Your task to perform on an android device: Empty the shopping cart on amazon.com. Add "razer nari" to the cart on amazon.com, then select checkout. Image 0: 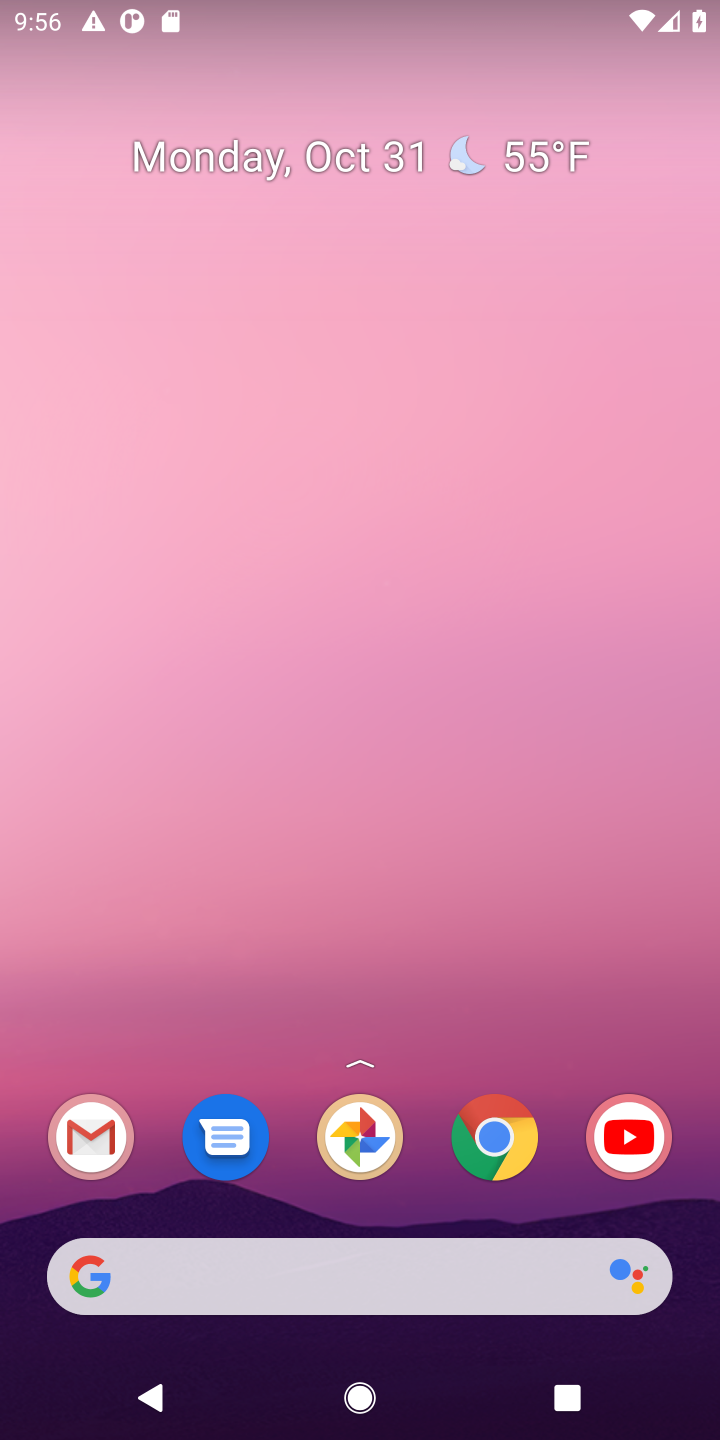
Step 0: click (502, 1139)
Your task to perform on an android device: Empty the shopping cart on amazon.com. Add "razer nari" to the cart on amazon.com, then select checkout. Image 1: 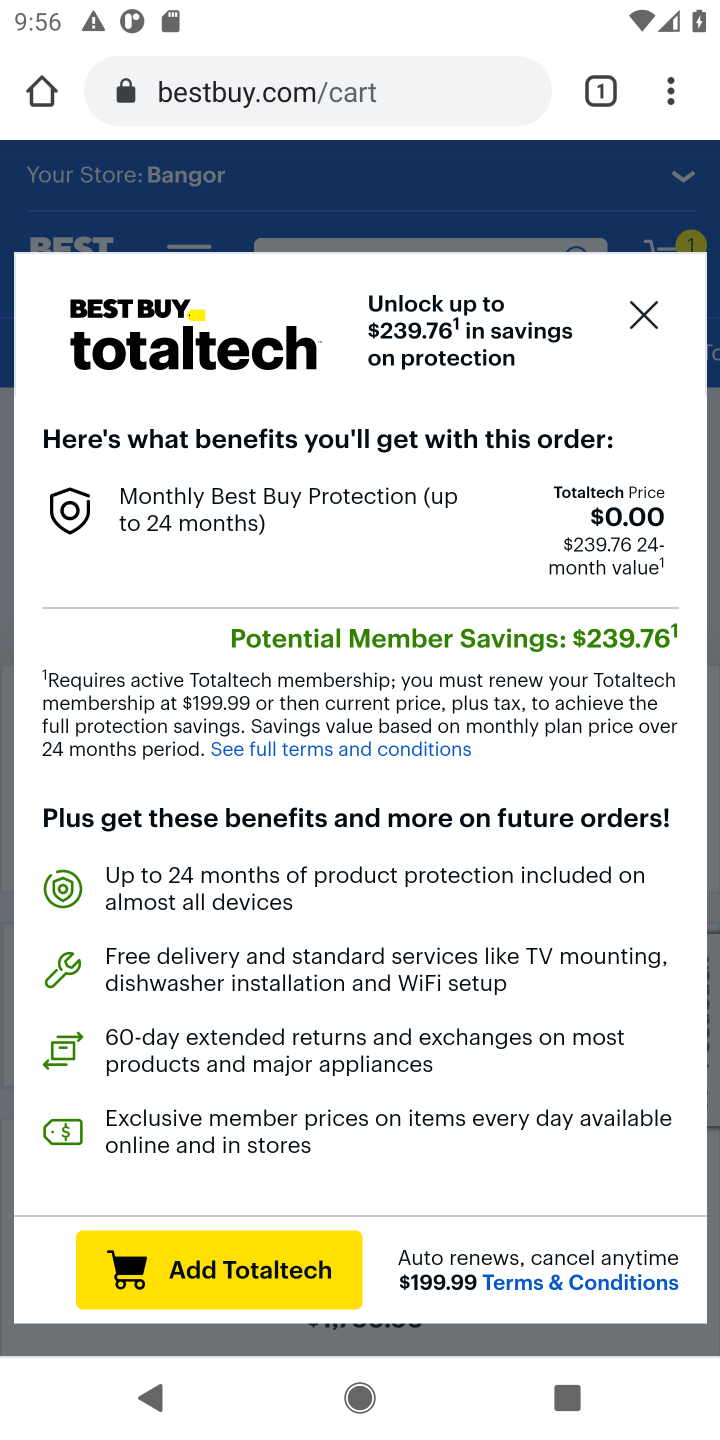
Step 1: click (297, 100)
Your task to perform on an android device: Empty the shopping cart on amazon.com. Add "razer nari" to the cart on amazon.com, then select checkout. Image 2: 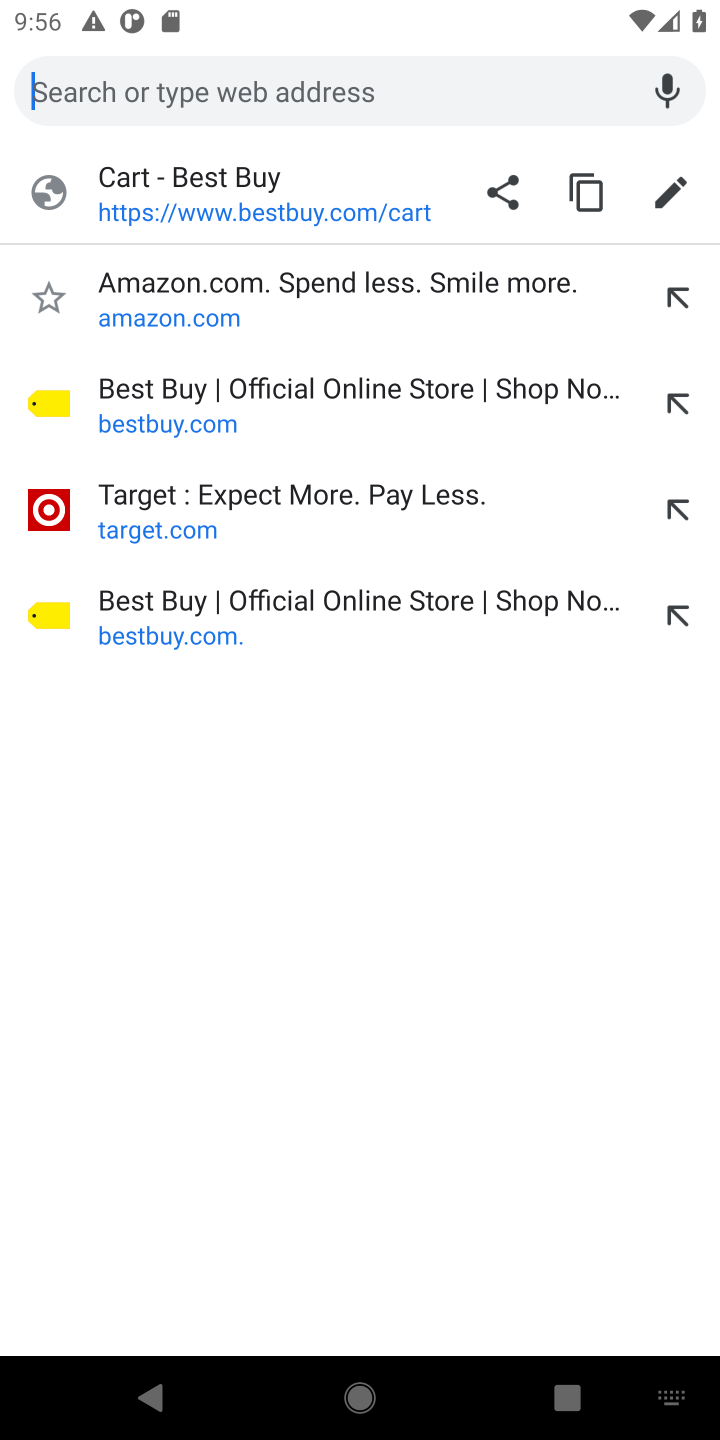
Step 2: type "amazon.com"
Your task to perform on an android device: Empty the shopping cart on amazon.com. Add "razer nari" to the cart on amazon.com, then select checkout. Image 3: 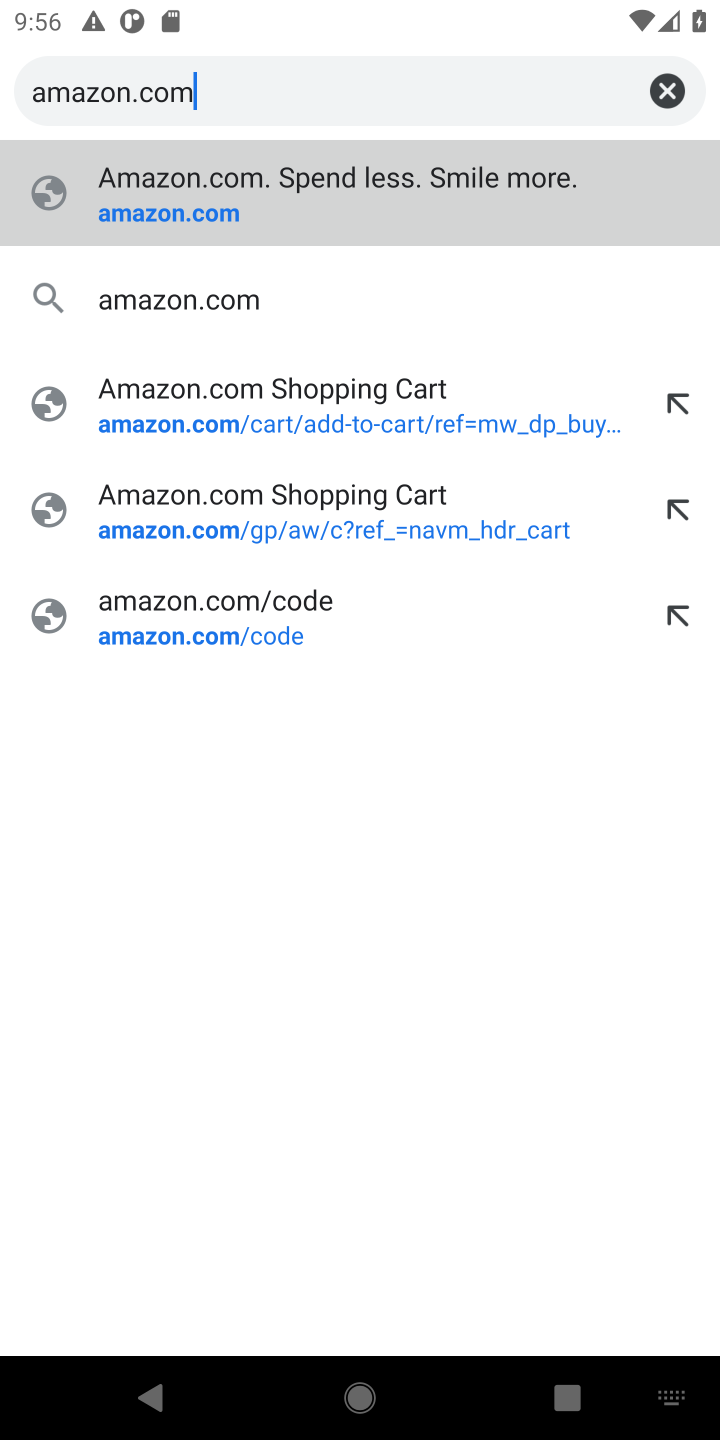
Step 3: click (160, 204)
Your task to perform on an android device: Empty the shopping cart on amazon.com. Add "razer nari" to the cart on amazon.com, then select checkout. Image 4: 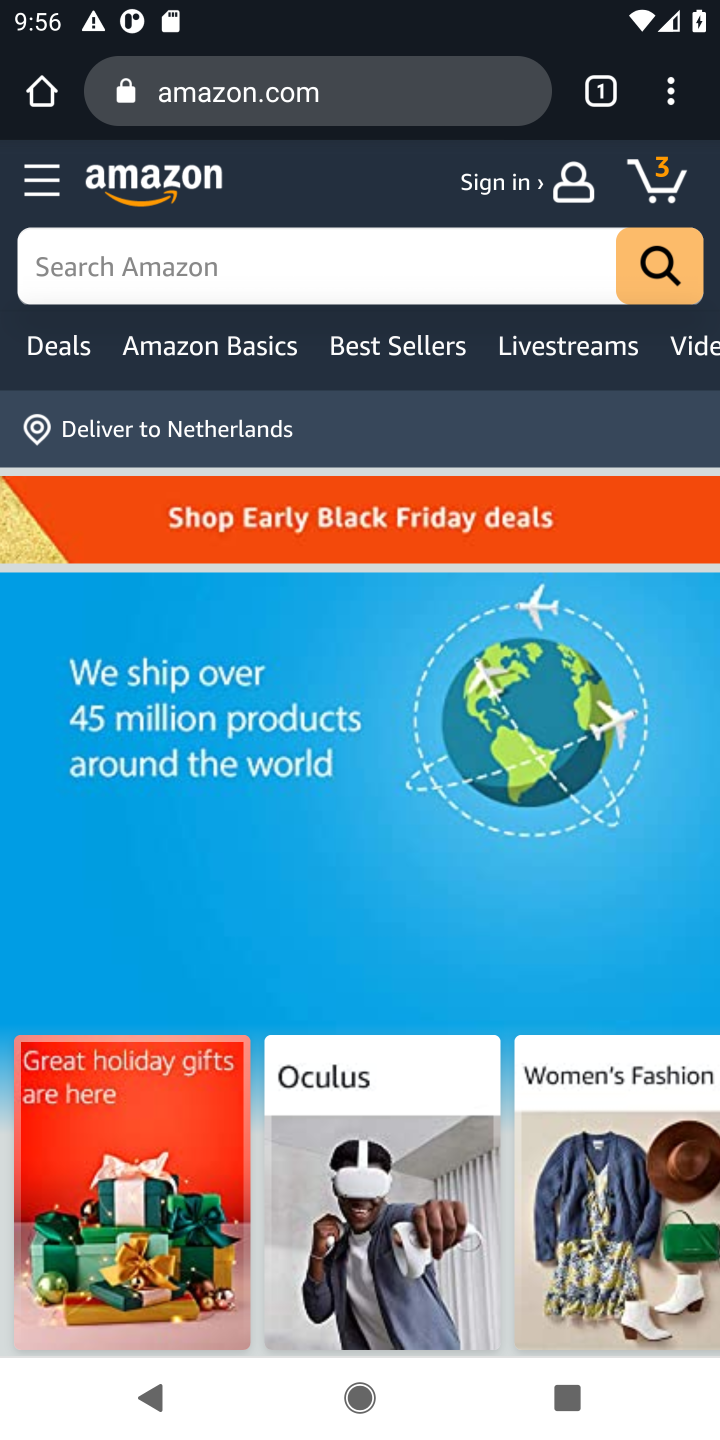
Step 4: click (673, 172)
Your task to perform on an android device: Empty the shopping cart on amazon.com. Add "razer nari" to the cart on amazon.com, then select checkout. Image 5: 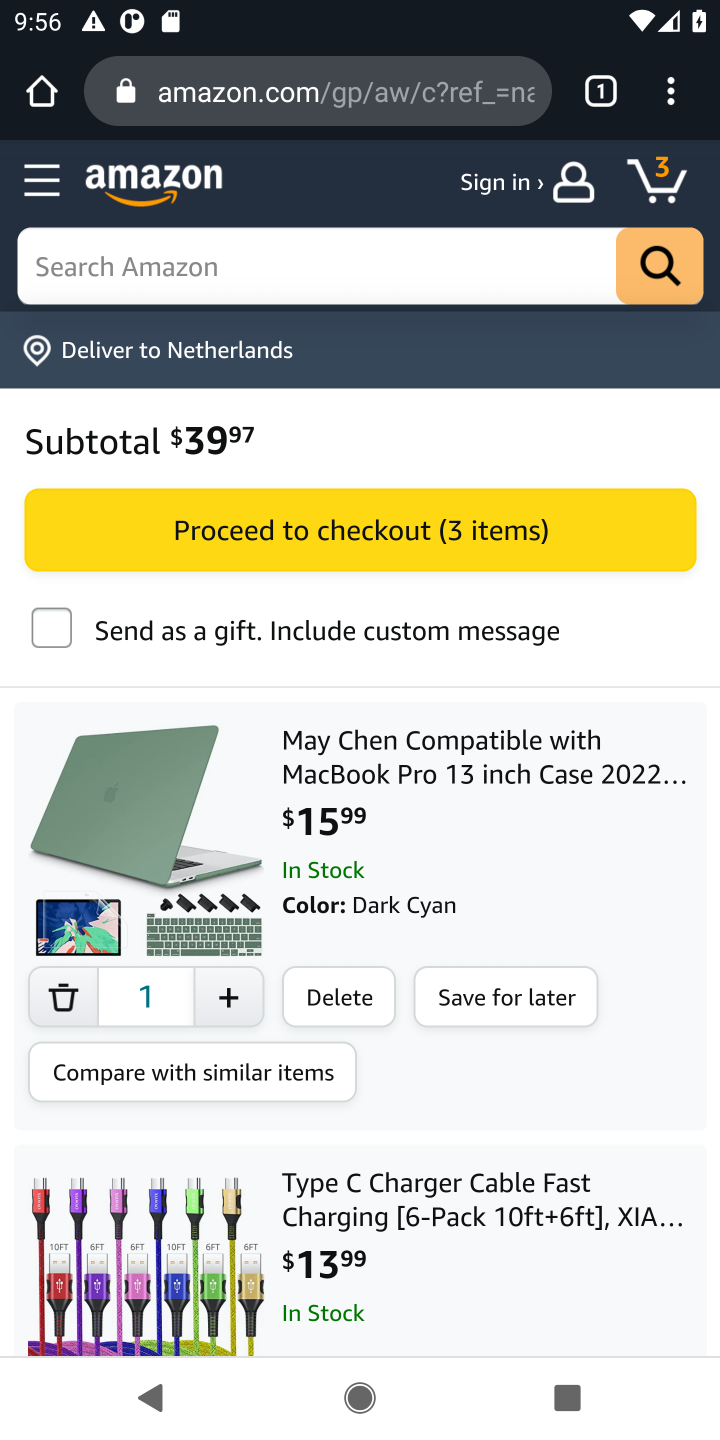
Step 5: click (345, 1005)
Your task to perform on an android device: Empty the shopping cart on amazon.com. Add "razer nari" to the cart on amazon.com, then select checkout. Image 6: 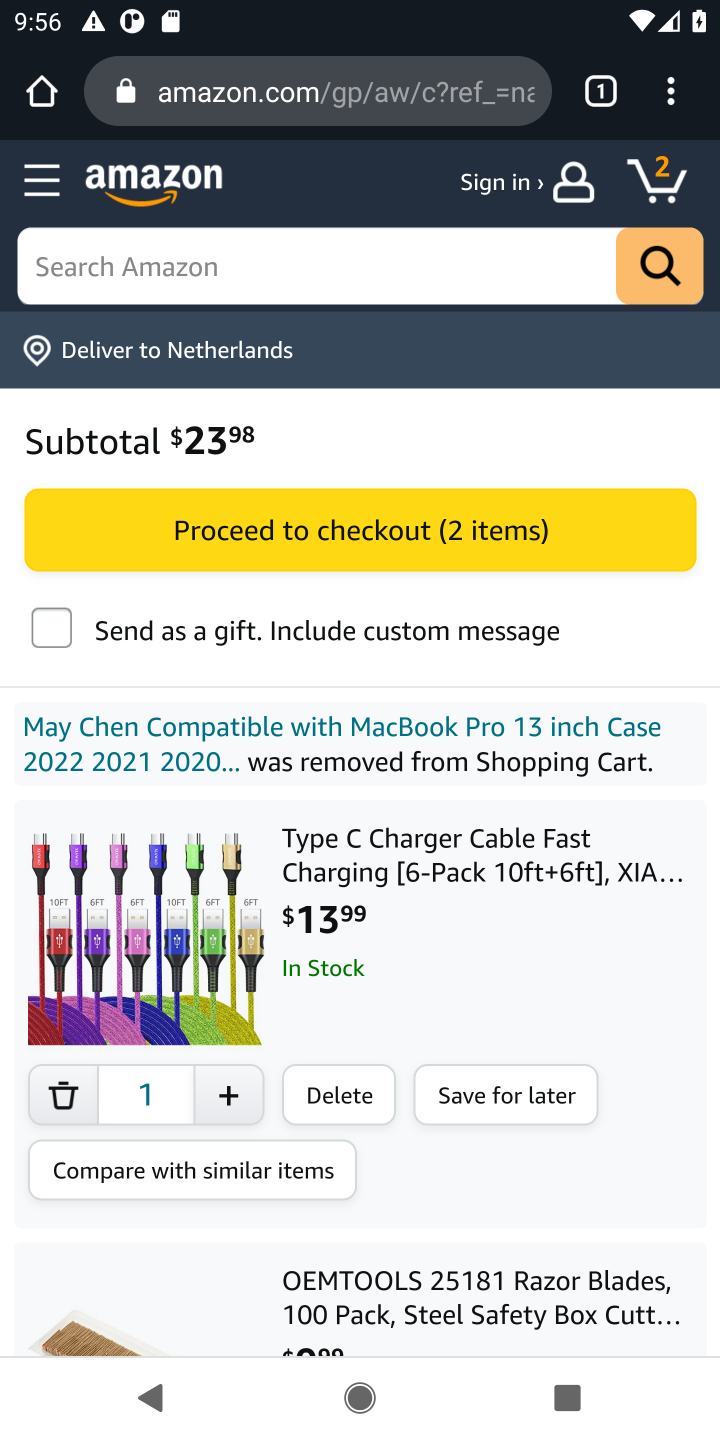
Step 6: click (328, 1111)
Your task to perform on an android device: Empty the shopping cart on amazon.com. Add "razer nari" to the cart on amazon.com, then select checkout. Image 7: 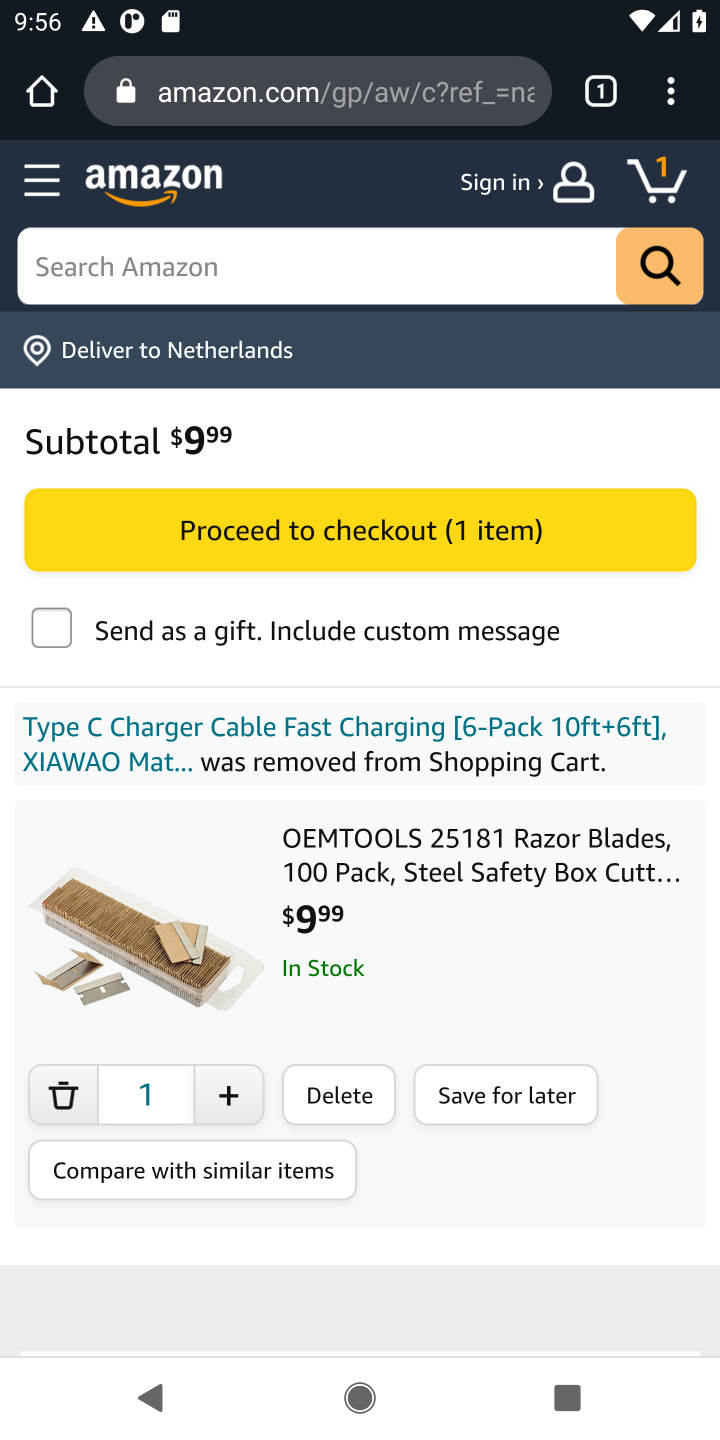
Step 7: click (333, 1099)
Your task to perform on an android device: Empty the shopping cart on amazon.com. Add "razer nari" to the cart on amazon.com, then select checkout. Image 8: 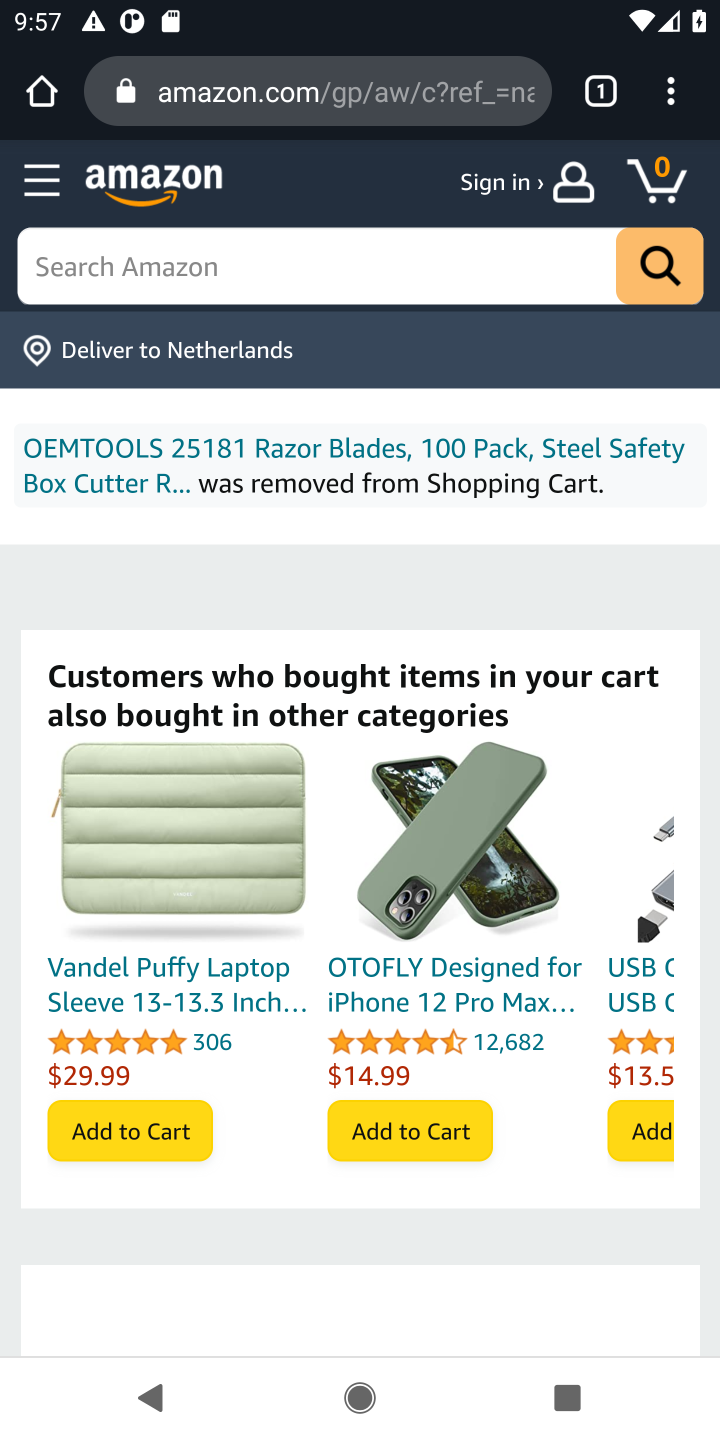
Step 8: click (309, 301)
Your task to perform on an android device: Empty the shopping cart on amazon.com. Add "razer nari" to the cart on amazon.com, then select checkout. Image 9: 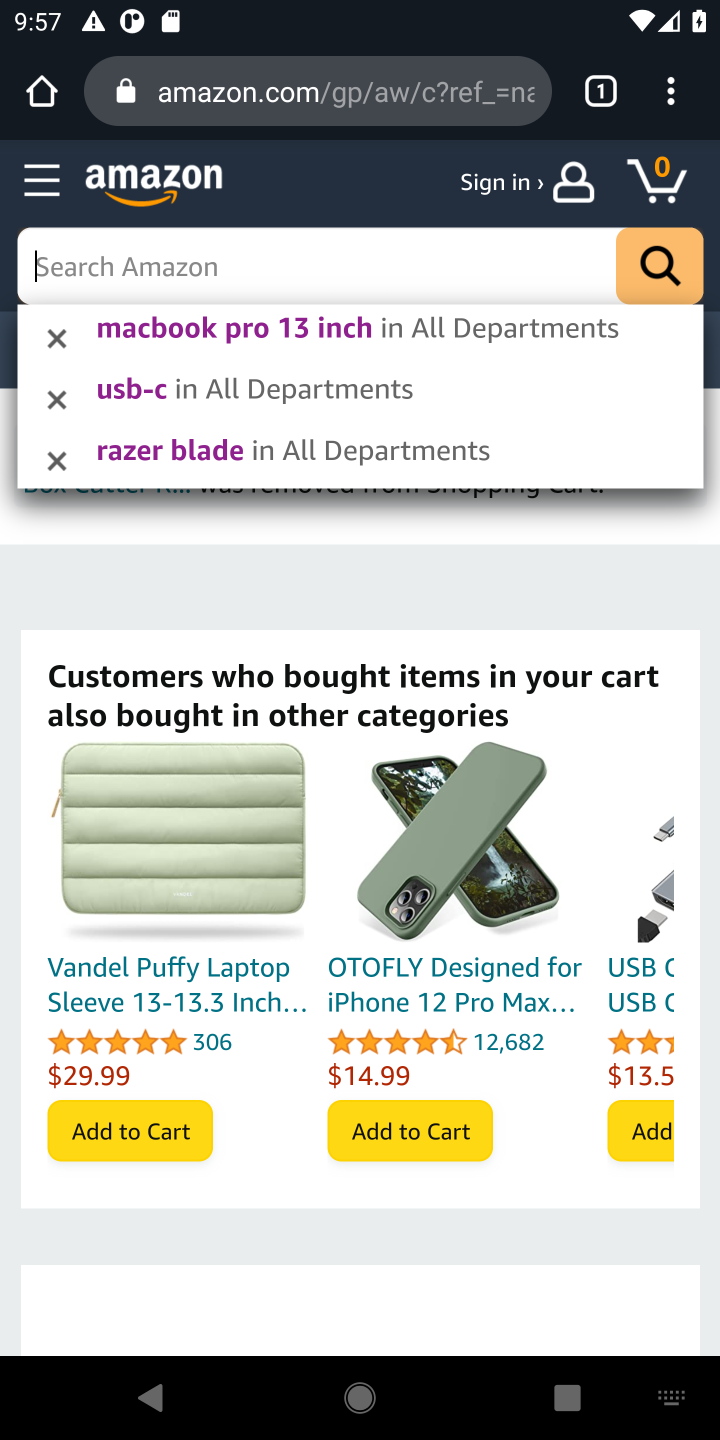
Step 9: type "razer nari"
Your task to perform on an android device: Empty the shopping cart on amazon.com. Add "razer nari" to the cart on amazon.com, then select checkout. Image 10: 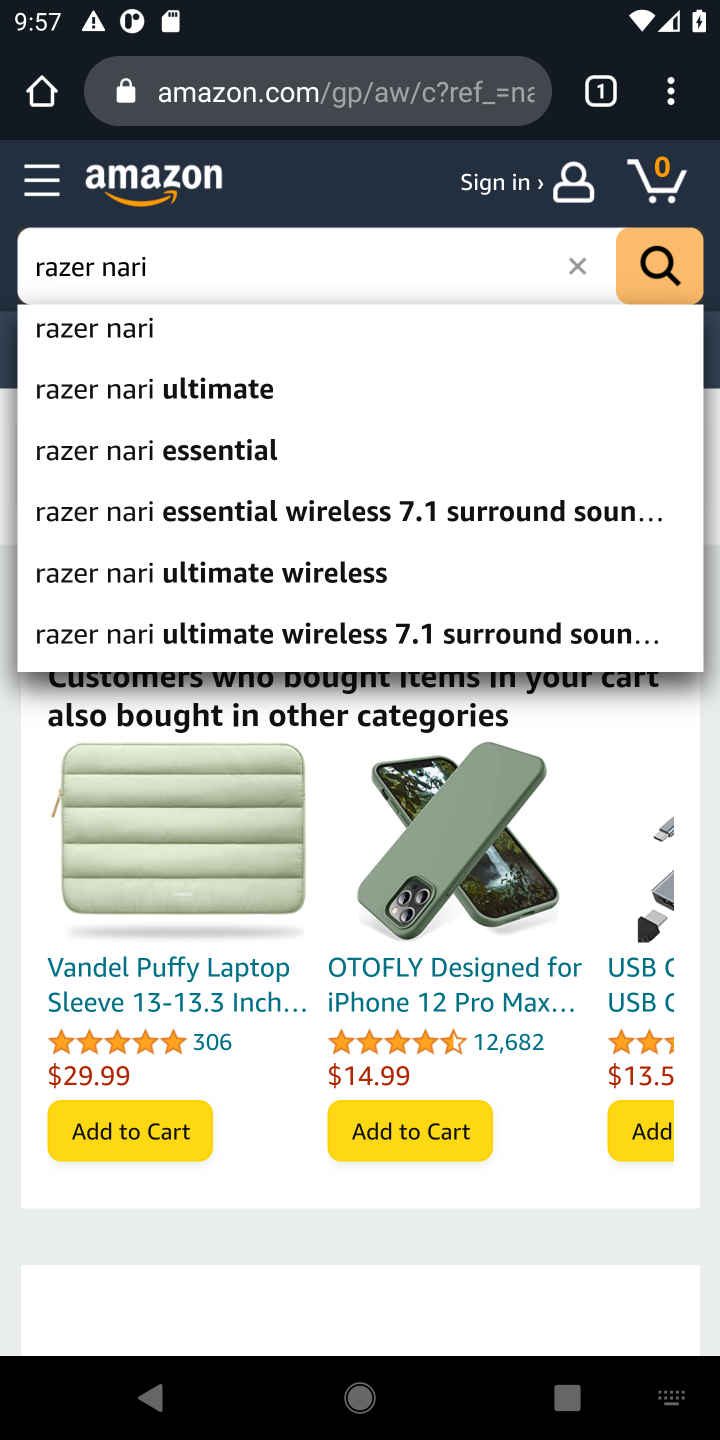
Step 10: click (653, 249)
Your task to perform on an android device: Empty the shopping cart on amazon.com. Add "razer nari" to the cart on amazon.com, then select checkout. Image 11: 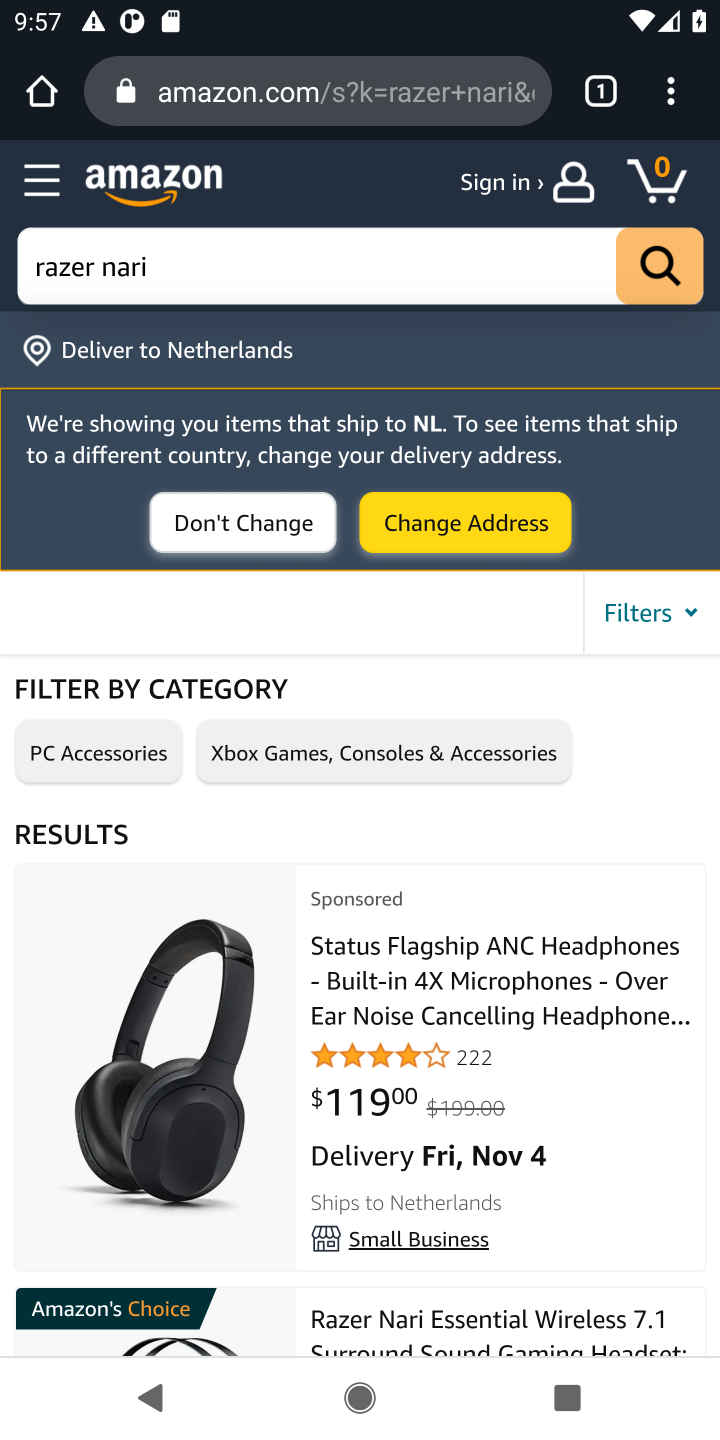
Step 11: click (659, 270)
Your task to perform on an android device: Empty the shopping cart on amazon.com. Add "razer nari" to the cart on amazon.com, then select checkout. Image 12: 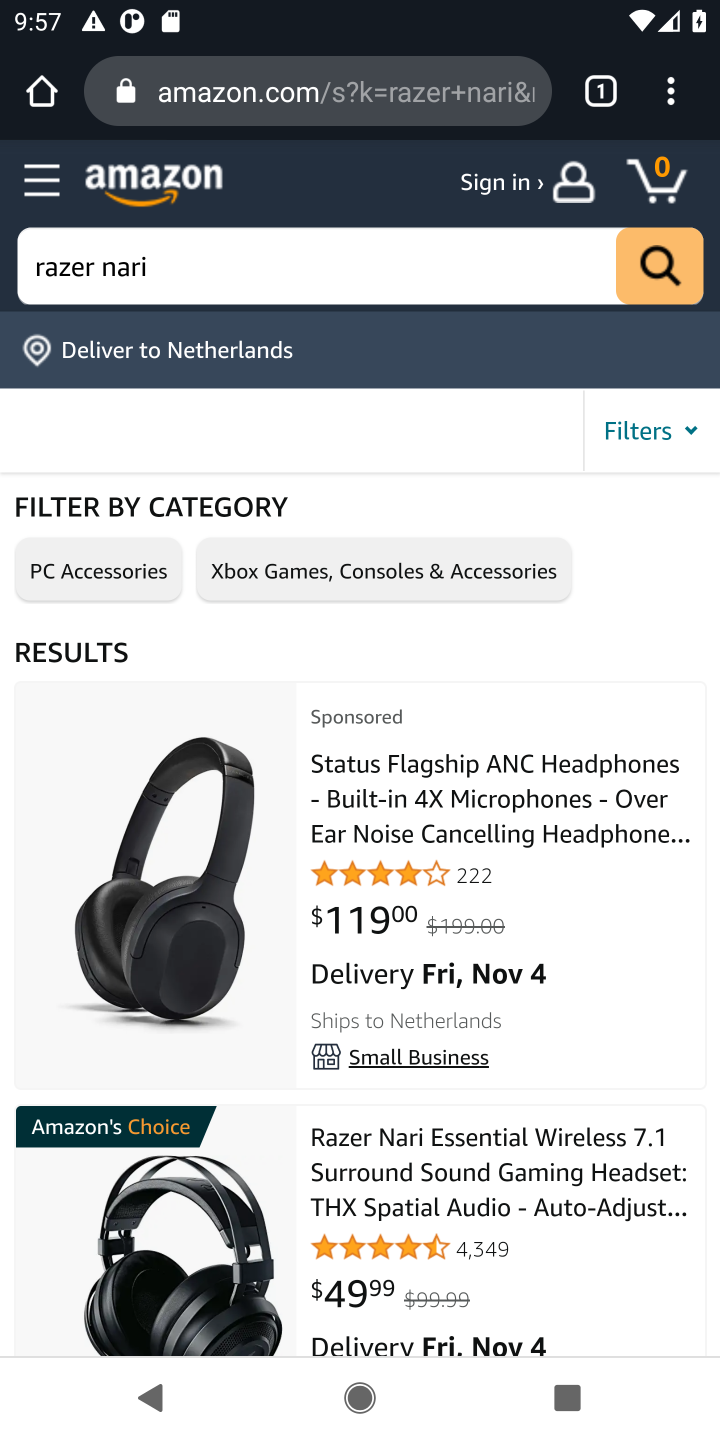
Step 12: click (200, 263)
Your task to perform on an android device: Empty the shopping cart on amazon.com. Add "razer nari" to the cart on amazon.com, then select checkout. Image 13: 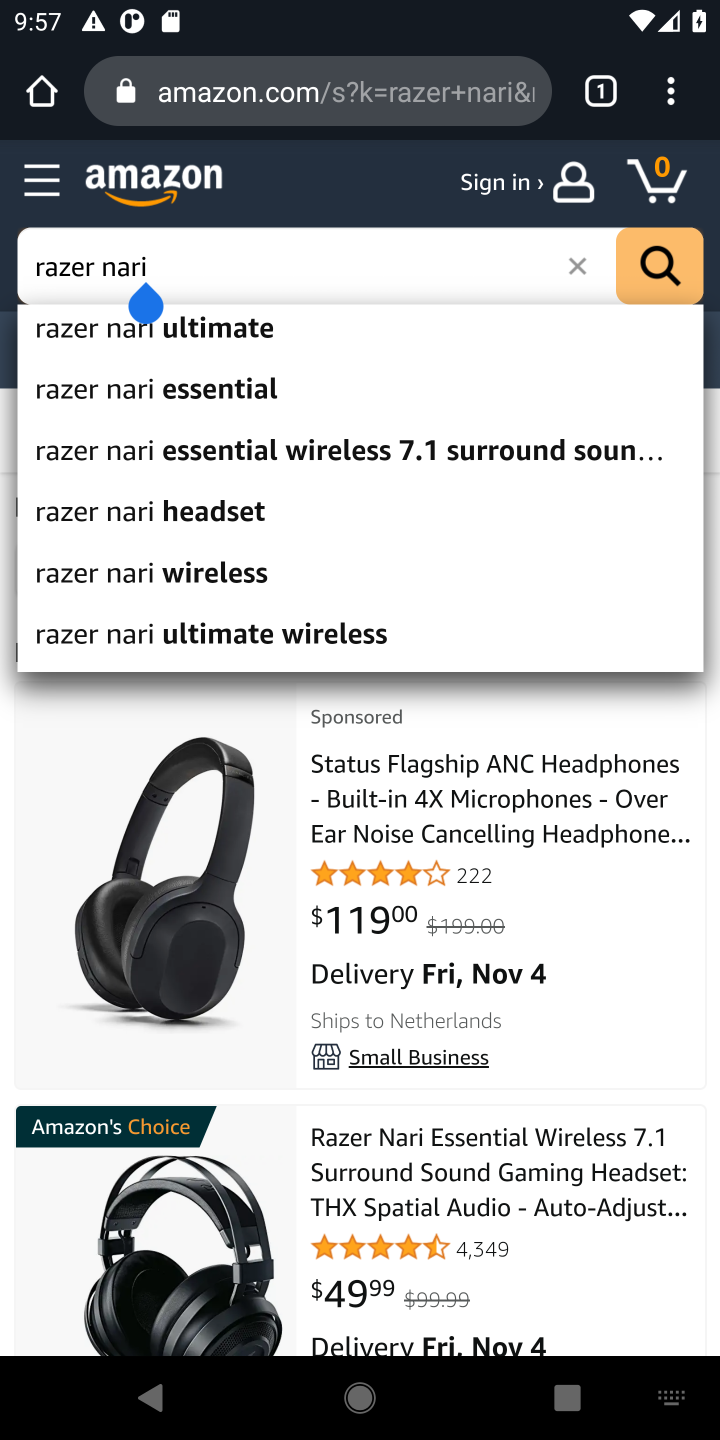
Step 13: click (321, 1252)
Your task to perform on an android device: Empty the shopping cart on amazon.com. Add "razer nari" to the cart on amazon.com, then select checkout. Image 14: 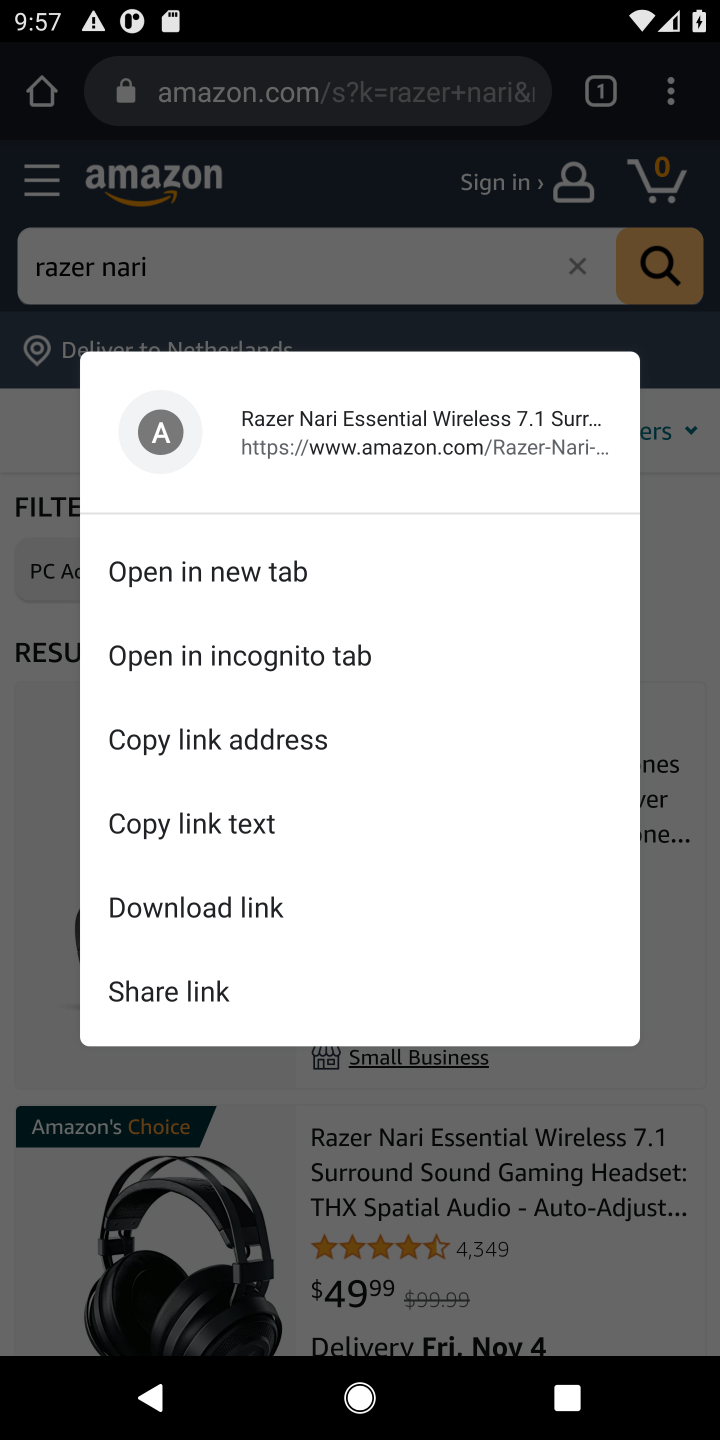
Step 14: click (330, 1246)
Your task to perform on an android device: Empty the shopping cart on amazon.com. Add "razer nari" to the cart on amazon.com, then select checkout. Image 15: 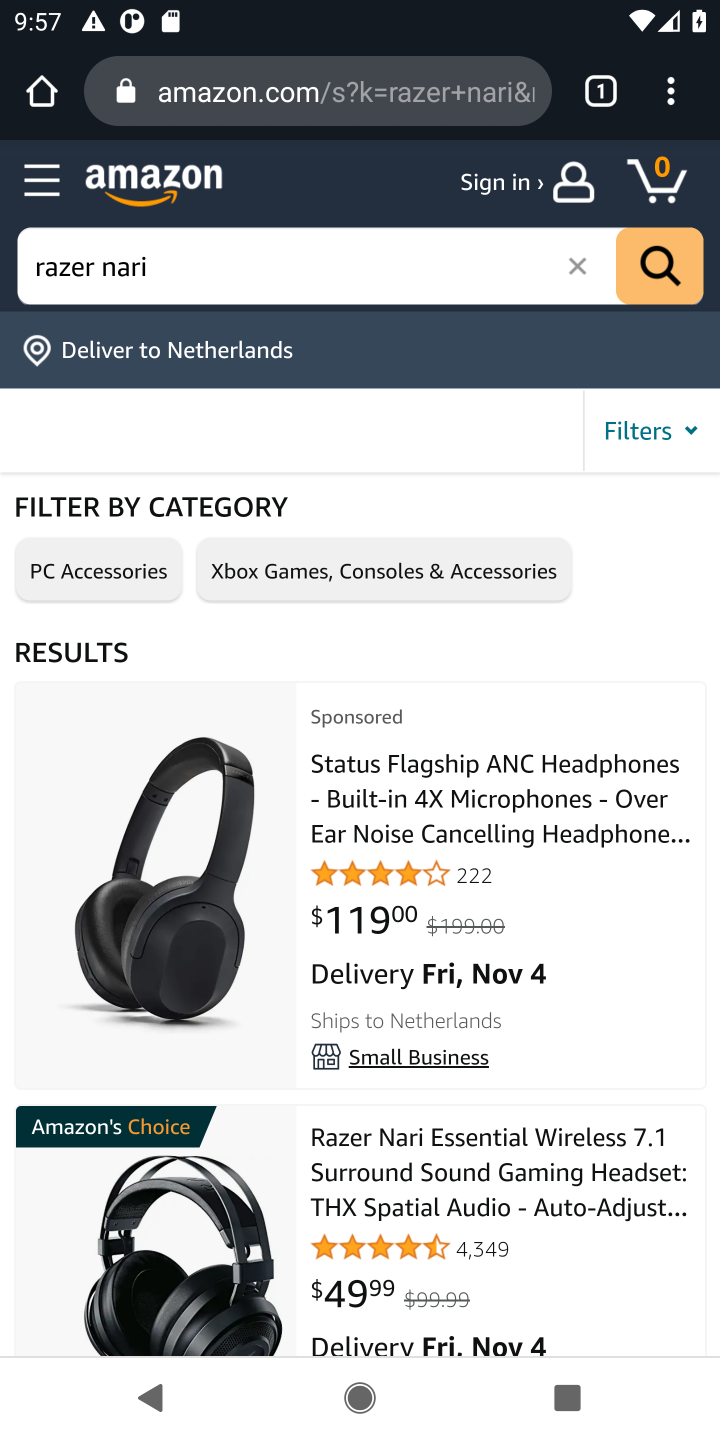
Step 15: drag from (330, 1246) to (362, 909)
Your task to perform on an android device: Empty the shopping cart on amazon.com. Add "razer nari" to the cart on amazon.com, then select checkout. Image 16: 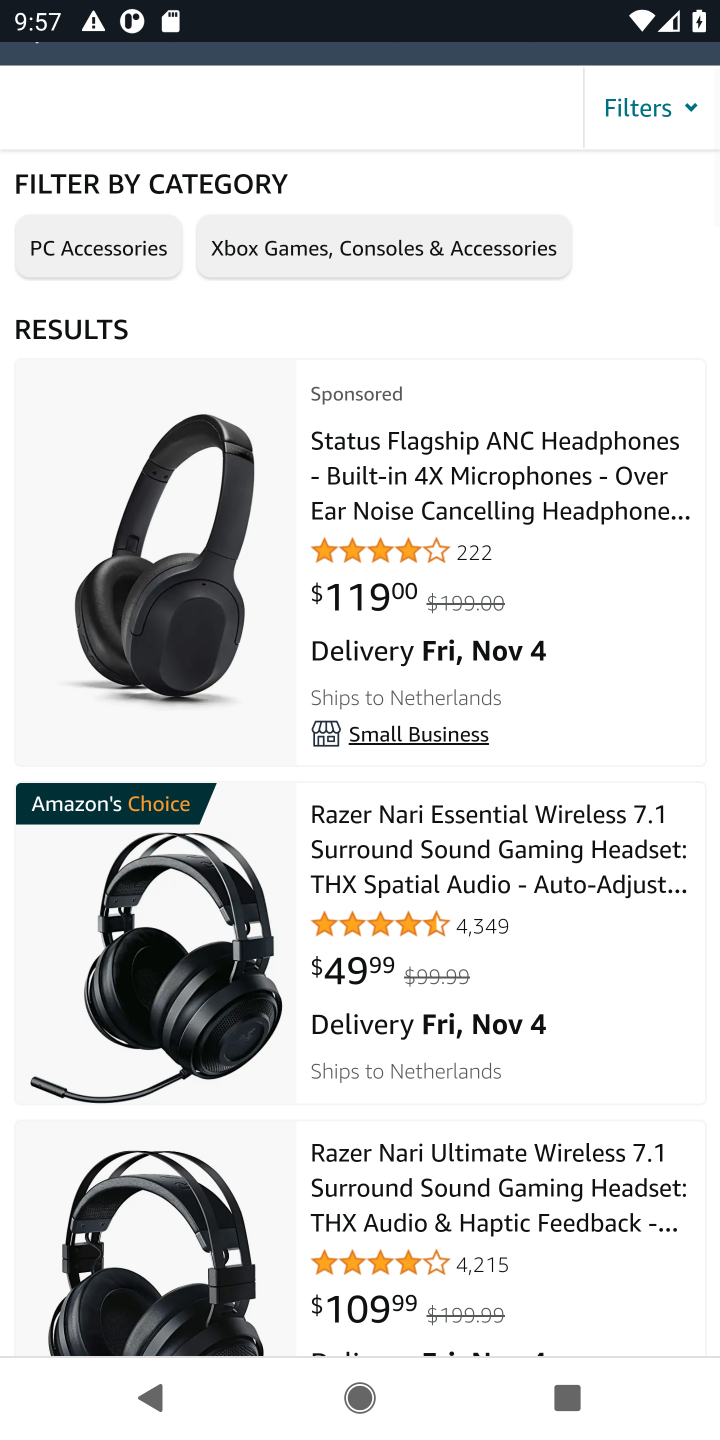
Step 16: click (306, 925)
Your task to perform on an android device: Empty the shopping cart on amazon.com. Add "razer nari" to the cart on amazon.com, then select checkout. Image 17: 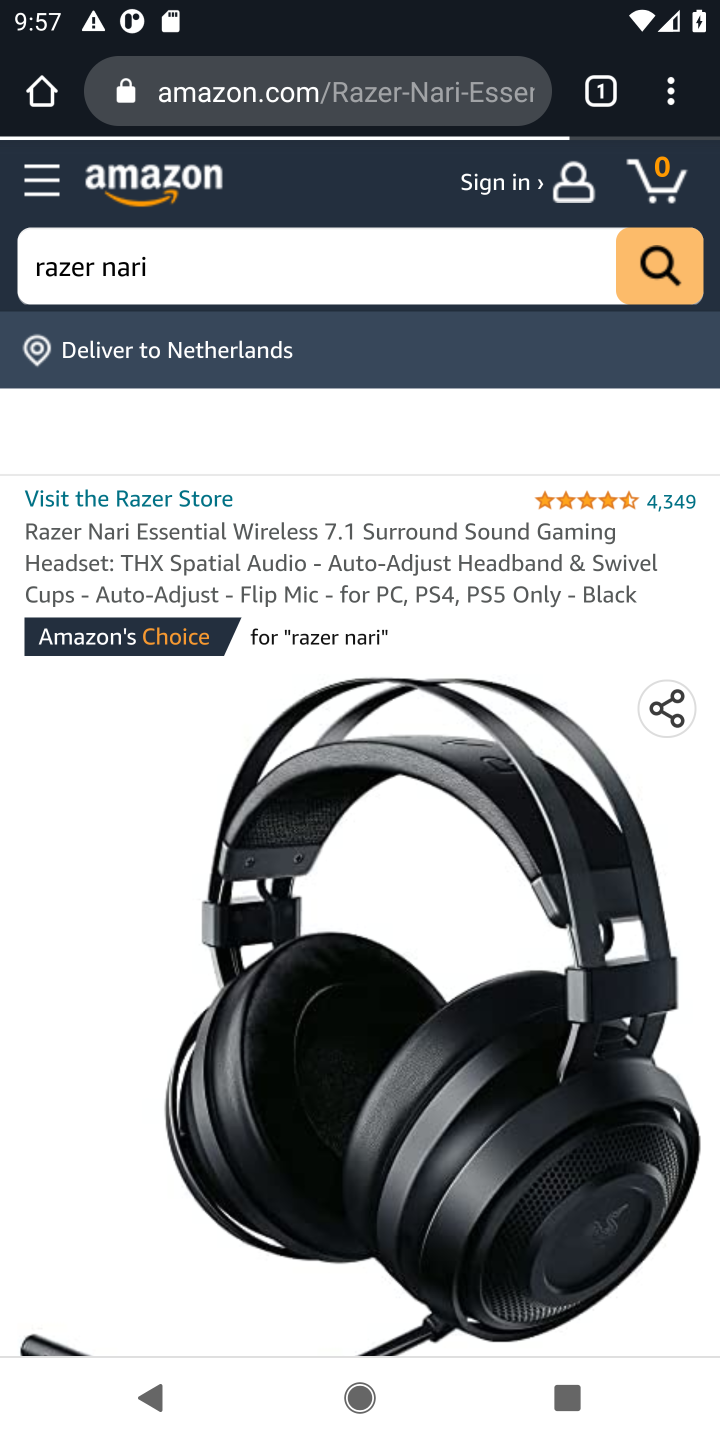
Step 17: drag from (315, 982) to (352, 429)
Your task to perform on an android device: Empty the shopping cart on amazon.com. Add "razer nari" to the cart on amazon.com, then select checkout. Image 18: 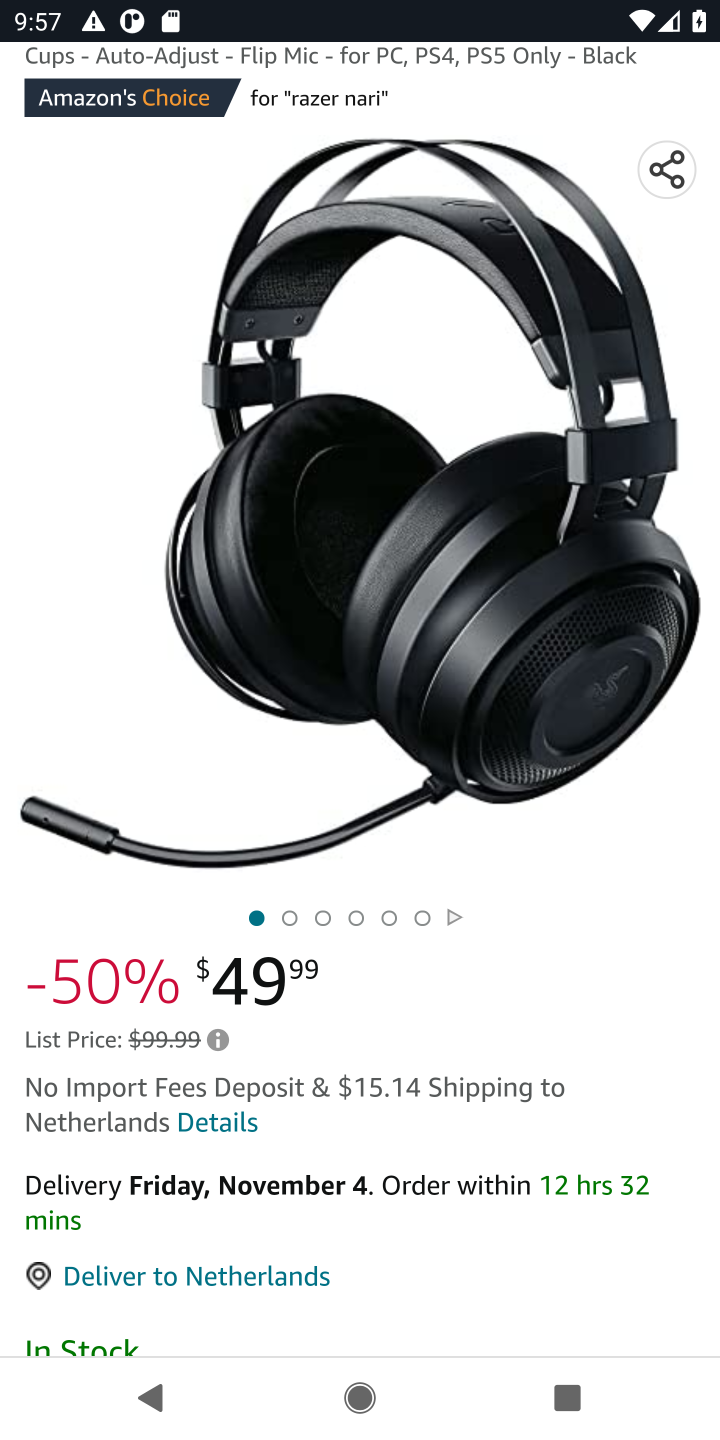
Step 18: drag from (315, 865) to (343, 388)
Your task to perform on an android device: Empty the shopping cart on amazon.com. Add "razer nari" to the cart on amazon.com, then select checkout. Image 19: 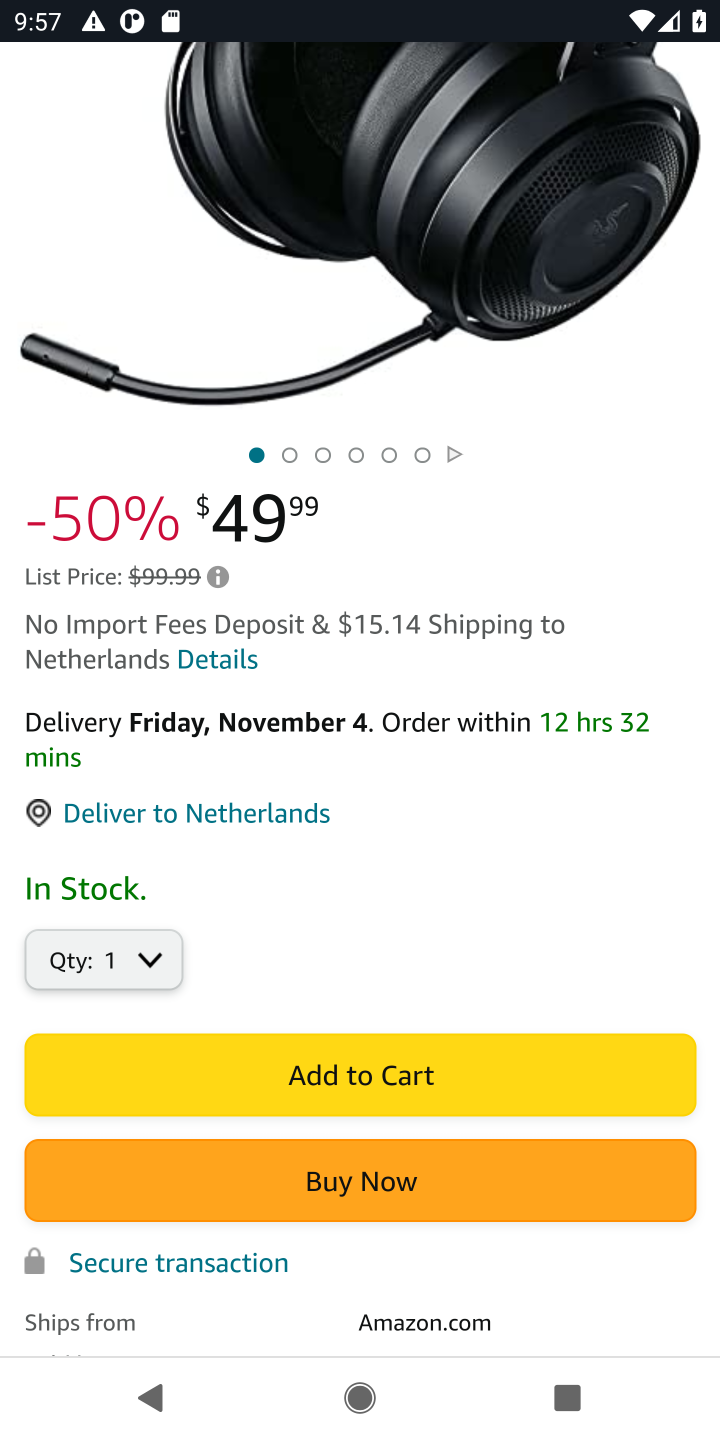
Step 19: click (360, 1080)
Your task to perform on an android device: Empty the shopping cart on amazon.com. Add "razer nari" to the cart on amazon.com, then select checkout. Image 20: 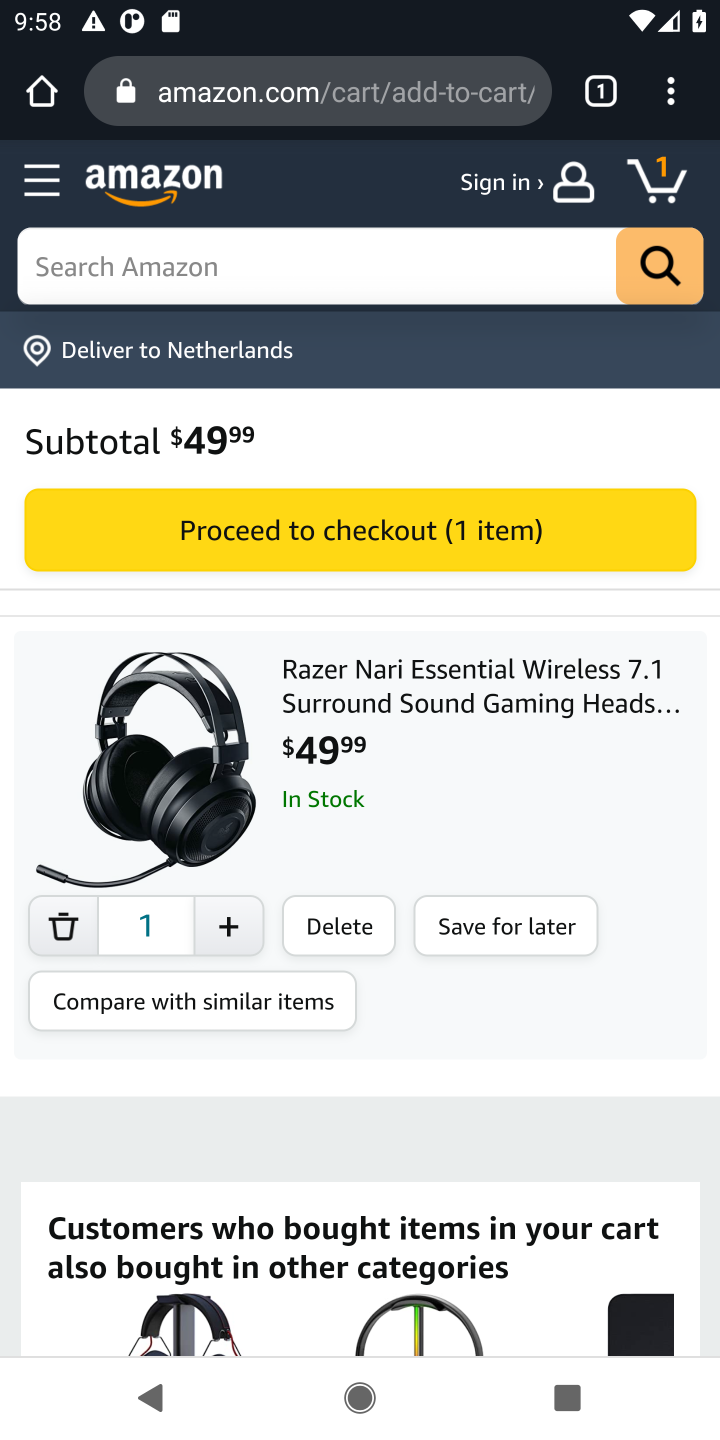
Step 20: click (337, 535)
Your task to perform on an android device: Empty the shopping cart on amazon.com. Add "razer nari" to the cart on amazon.com, then select checkout. Image 21: 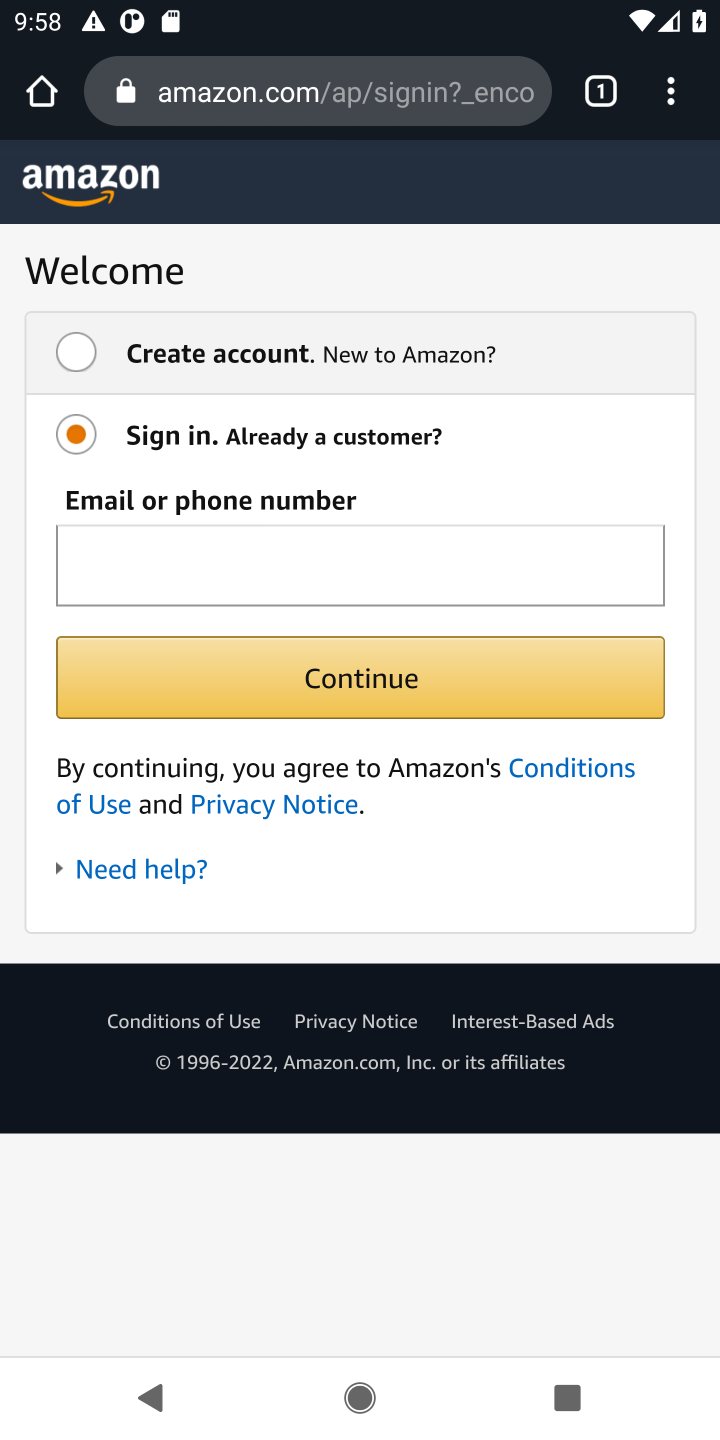
Step 21: task complete